Your task to perform on an android device: allow cookies in the chrome app Image 0: 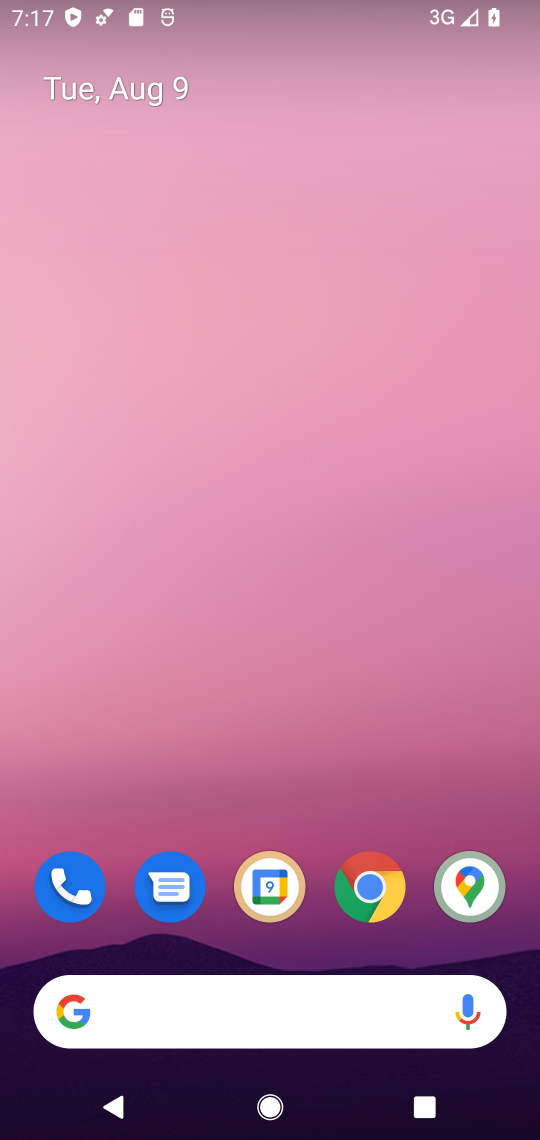
Step 0: click (373, 889)
Your task to perform on an android device: allow cookies in the chrome app Image 1: 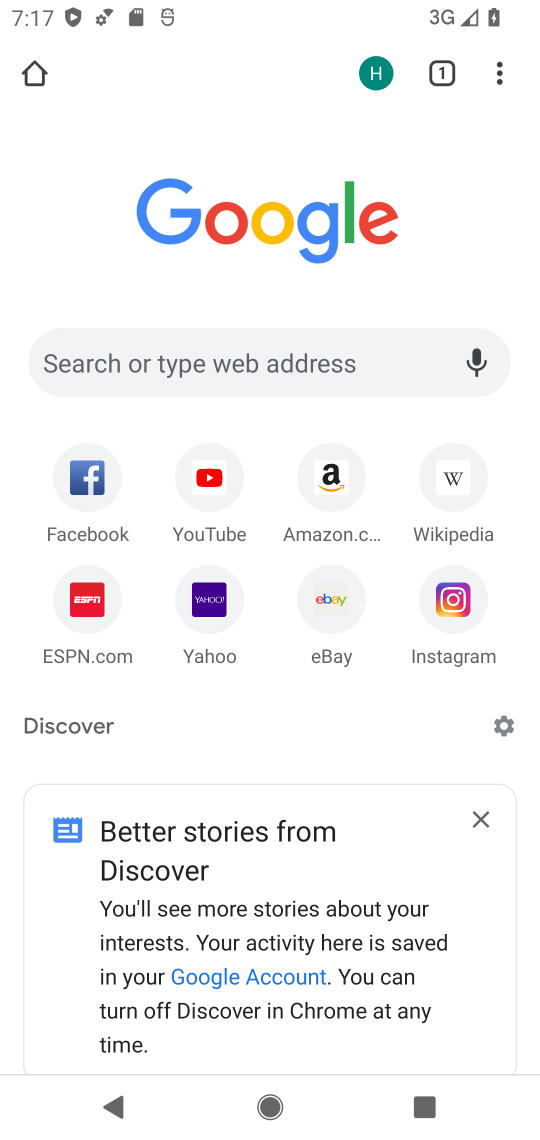
Step 1: click (501, 71)
Your task to perform on an android device: allow cookies in the chrome app Image 2: 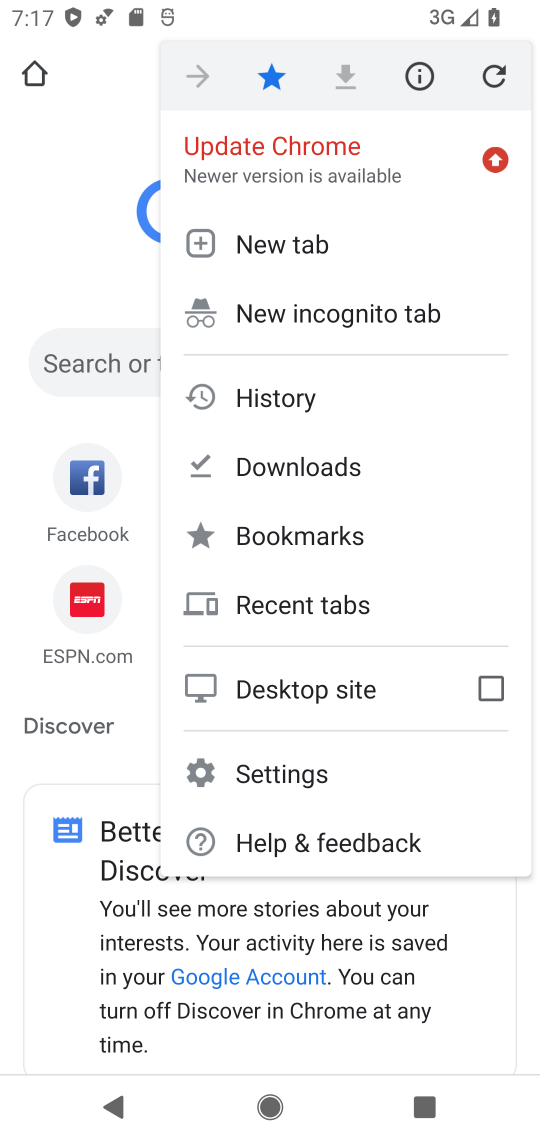
Step 2: click (315, 763)
Your task to perform on an android device: allow cookies in the chrome app Image 3: 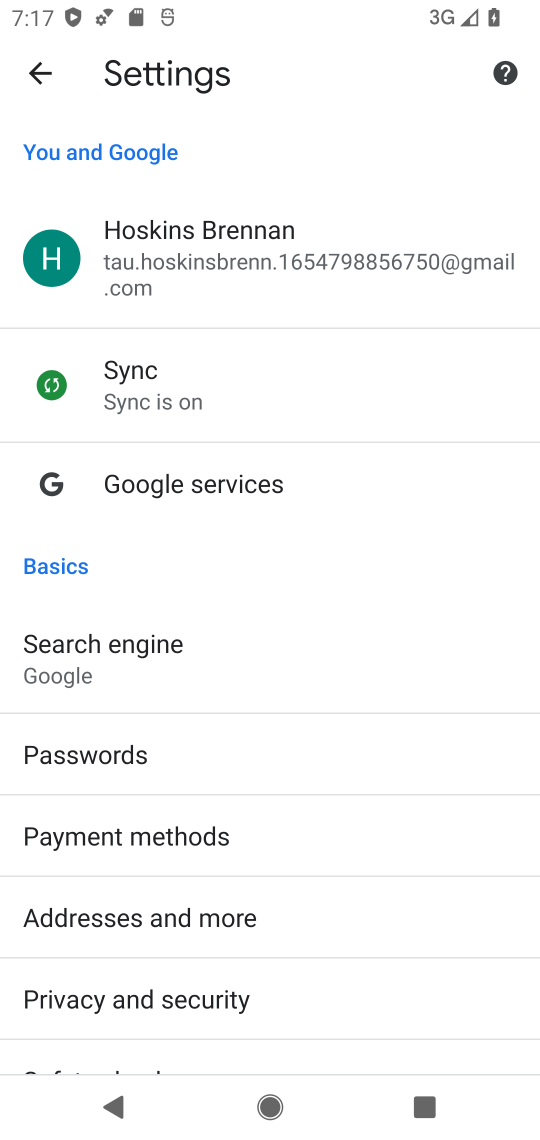
Step 3: drag from (300, 919) to (355, 378)
Your task to perform on an android device: allow cookies in the chrome app Image 4: 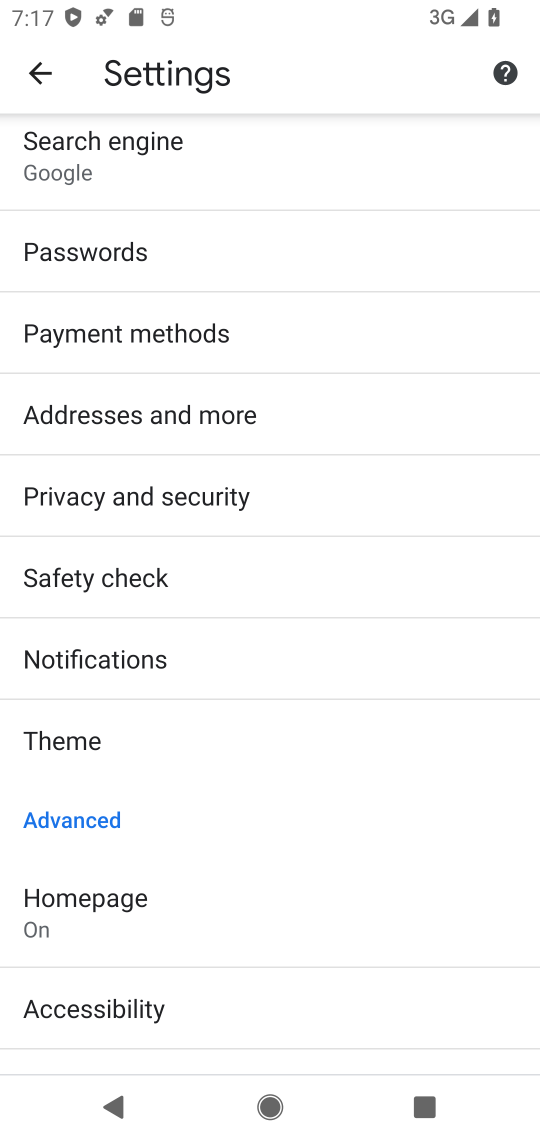
Step 4: drag from (348, 756) to (344, 253)
Your task to perform on an android device: allow cookies in the chrome app Image 5: 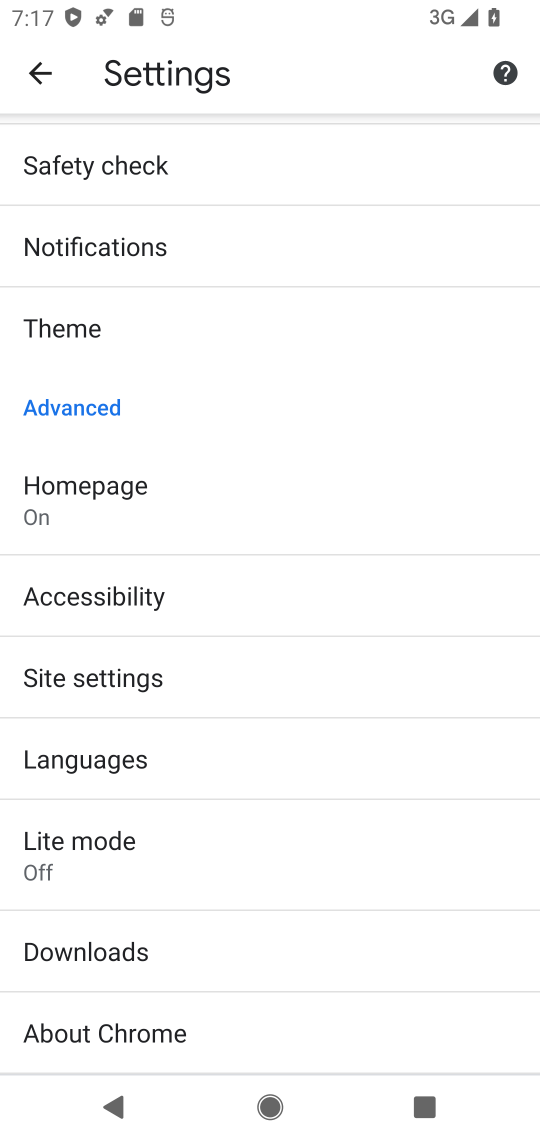
Step 5: click (129, 669)
Your task to perform on an android device: allow cookies in the chrome app Image 6: 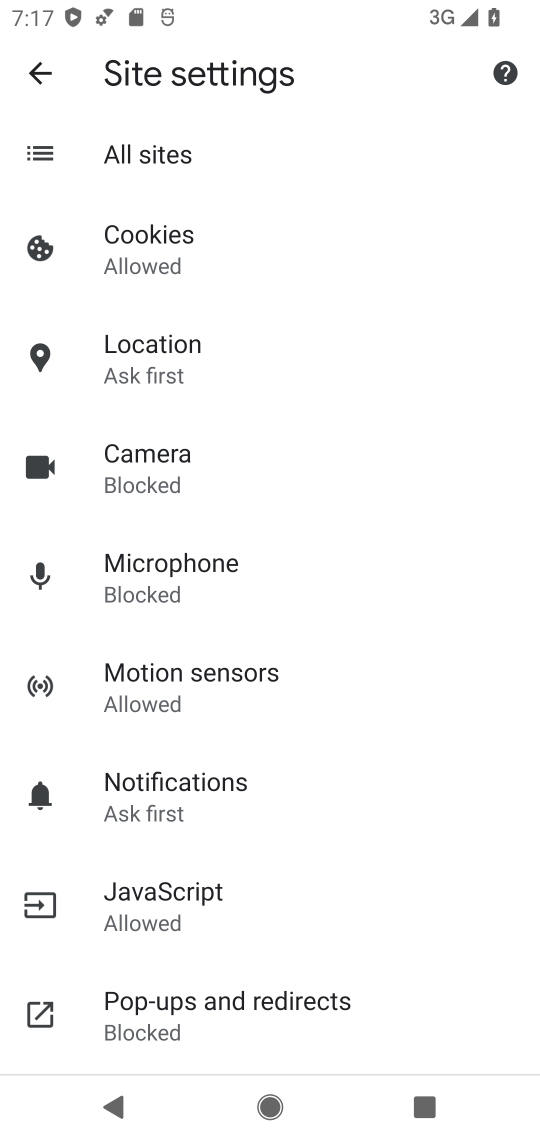
Step 6: click (206, 248)
Your task to perform on an android device: allow cookies in the chrome app Image 7: 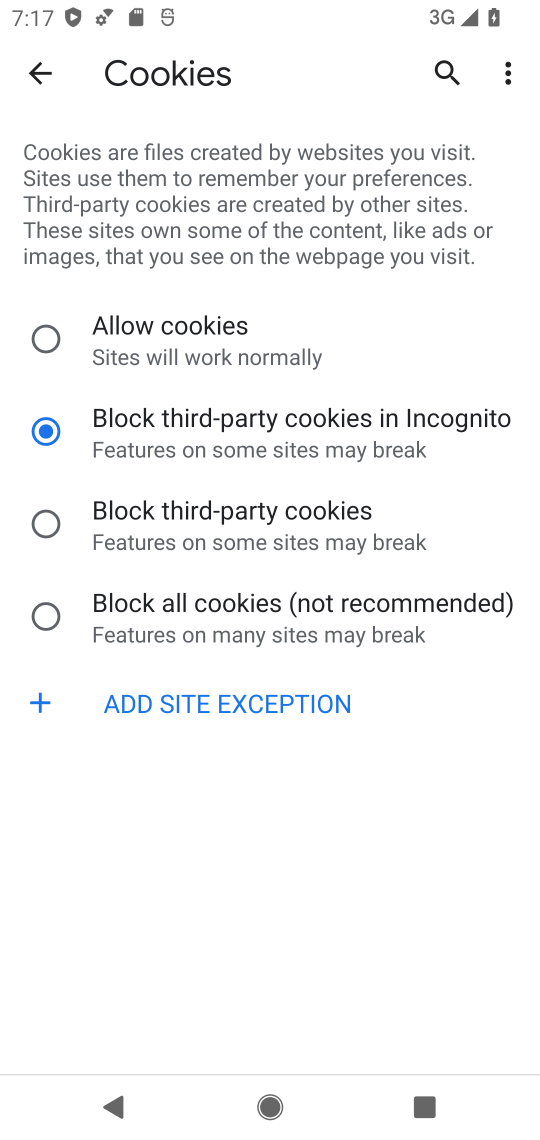
Step 7: click (38, 333)
Your task to perform on an android device: allow cookies in the chrome app Image 8: 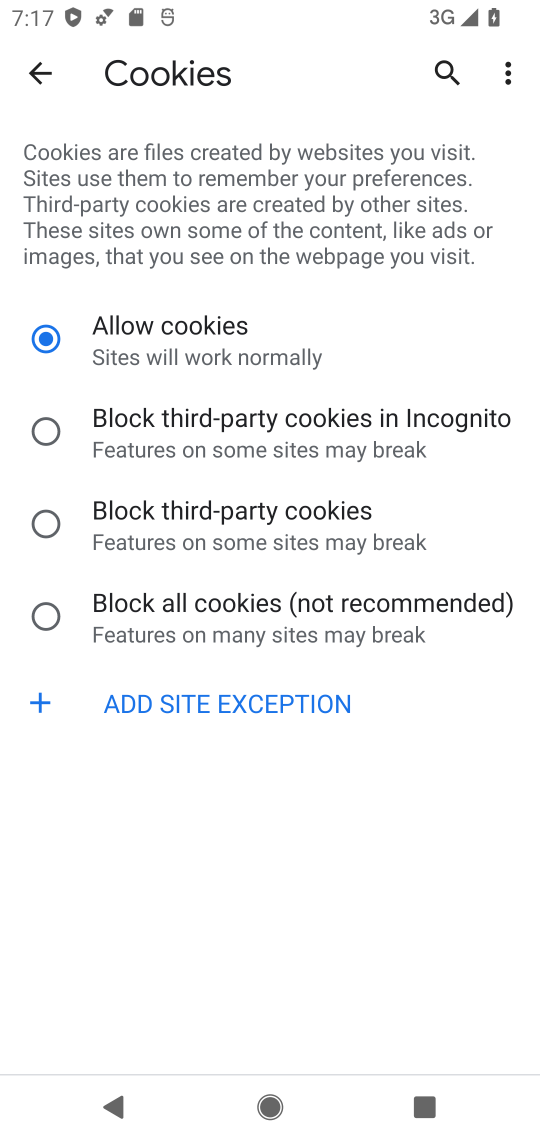
Step 8: task complete